Your task to perform on an android device: Open the Play Movies app and select the watchlist tab. Image 0: 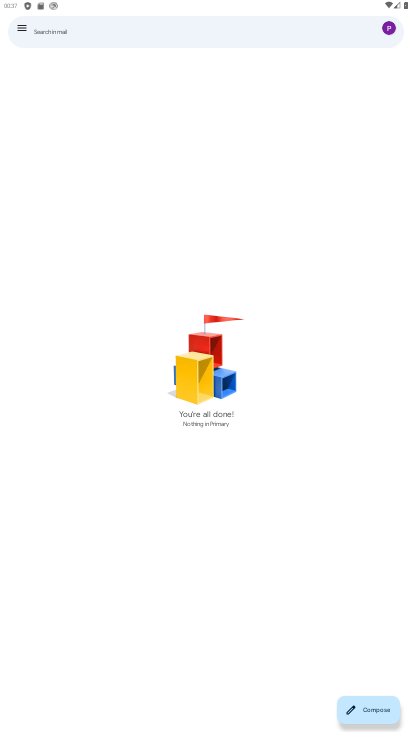
Step 0: press home button
Your task to perform on an android device: Open the Play Movies app and select the watchlist tab. Image 1: 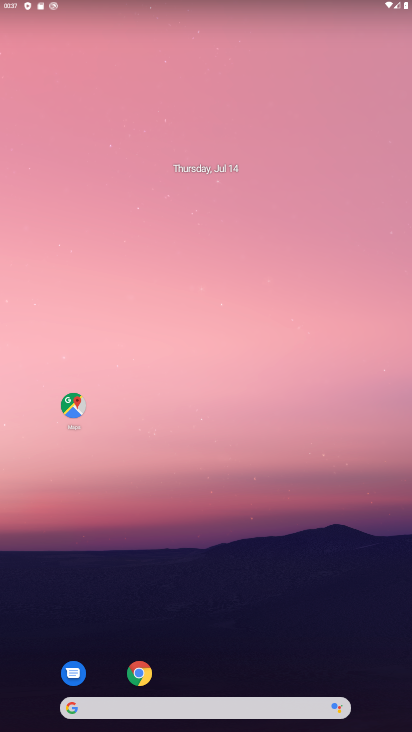
Step 1: drag from (312, 653) to (276, 367)
Your task to perform on an android device: Open the Play Movies app and select the watchlist tab. Image 2: 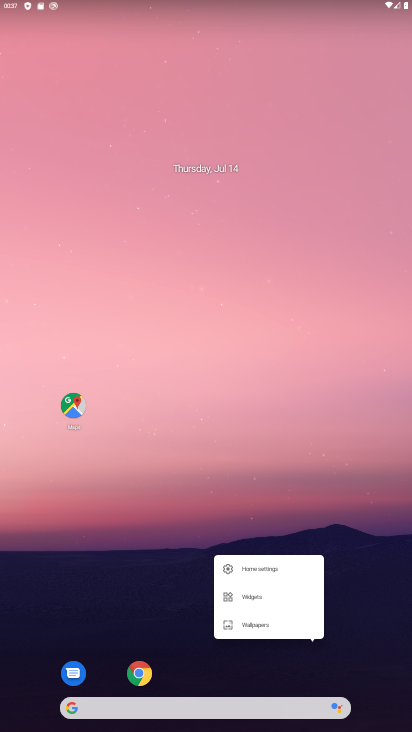
Step 2: click (276, 367)
Your task to perform on an android device: Open the Play Movies app and select the watchlist tab. Image 3: 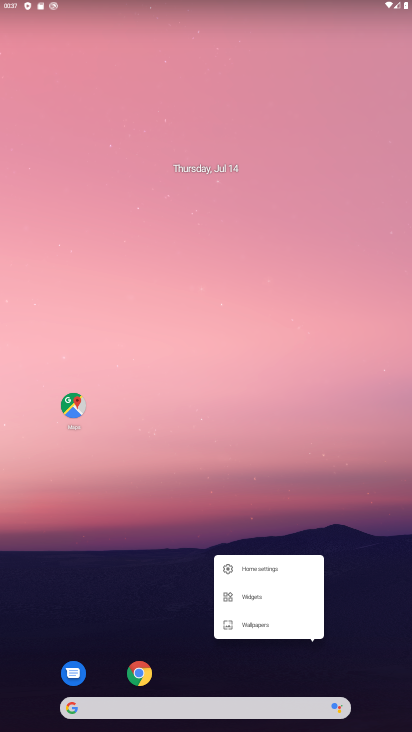
Step 3: click (276, 367)
Your task to perform on an android device: Open the Play Movies app and select the watchlist tab. Image 4: 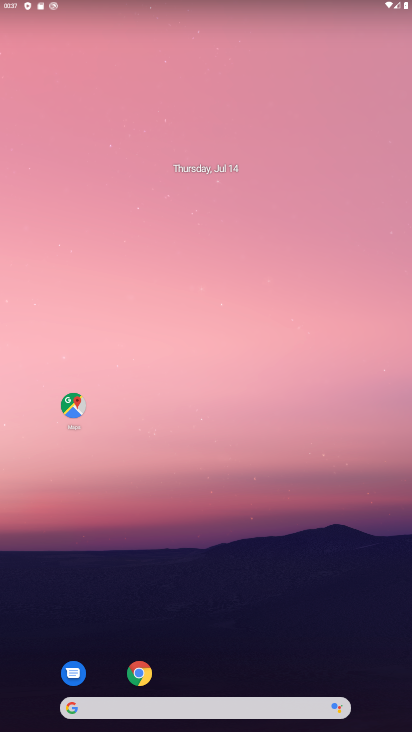
Step 4: drag from (248, 667) to (241, 154)
Your task to perform on an android device: Open the Play Movies app and select the watchlist tab. Image 5: 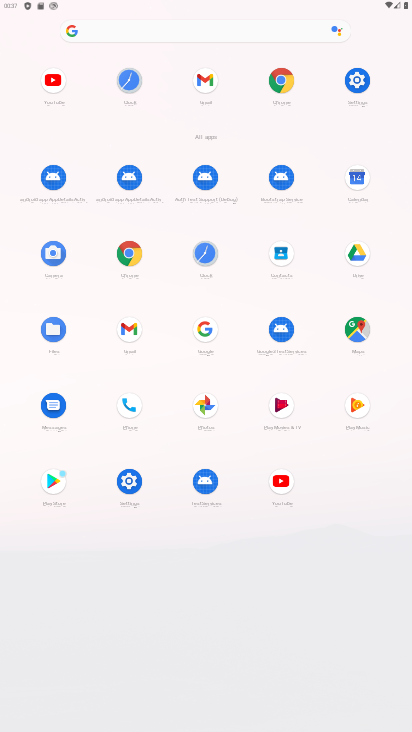
Step 5: click (280, 409)
Your task to perform on an android device: Open the Play Movies app and select the watchlist tab. Image 6: 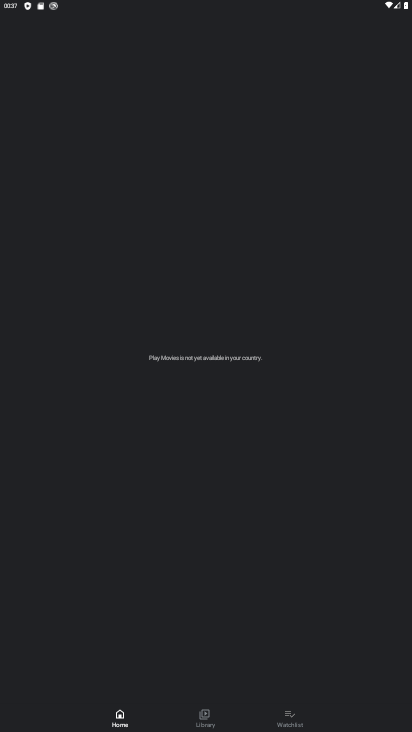
Step 6: click (287, 710)
Your task to perform on an android device: Open the Play Movies app and select the watchlist tab. Image 7: 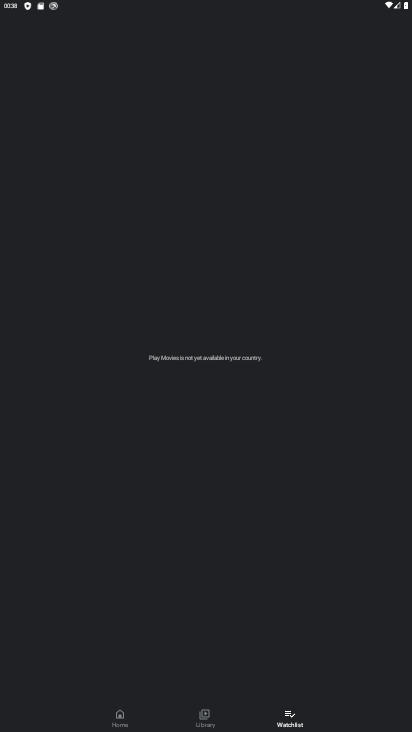
Step 7: task complete